Your task to perform on an android device: Clear all items from cart on bestbuy.com. Add "logitech g502" to the cart on bestbuy.com Image 0: 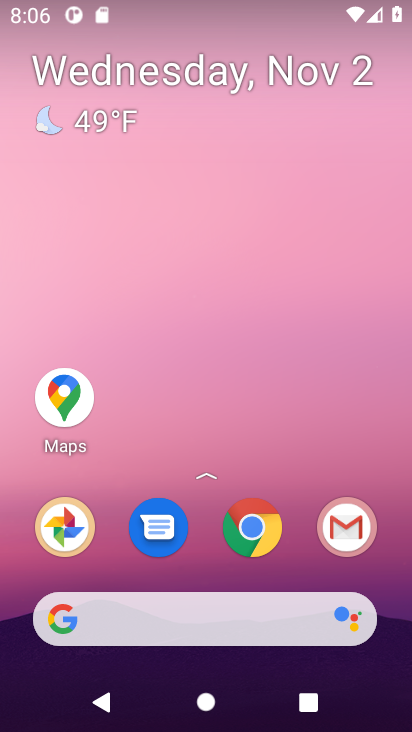
Step 0: click (255, 531)
Your task to perform on an android device: Clear all items from cart on bestbuy.com. Add "logitech g502" to the cart on bestbuy.com Image 1: 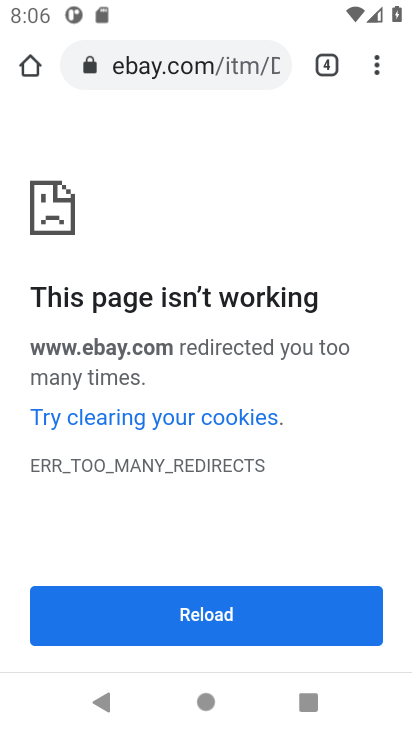
Step 1: click (190, 74)
Your task to perform on an android device: Clear all items from cart on bestbuy.com. Add "logitech g502" to the cart on bestbuy.com Image 2: 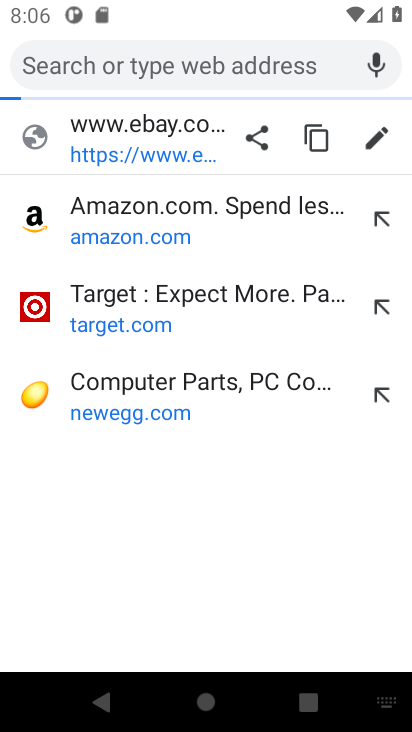
Step 2: type "bestbuy"
Your task to perform on an android device: Clear all items from cart on bestbuy.com. Add "logitech g502" to the cart on bestbuy.com Image 3: 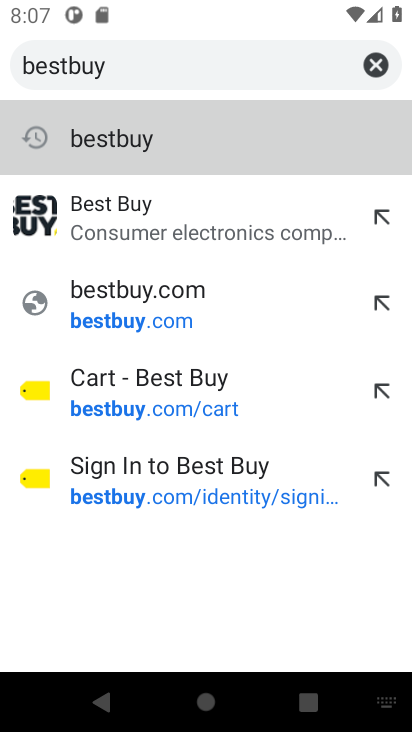
Step 3: click (123, 138)
Your task to perform on an android device: Clear all items from cart on bestbuy.com. Add "logitech g502" to the cart on bestbuy.com Image 4: 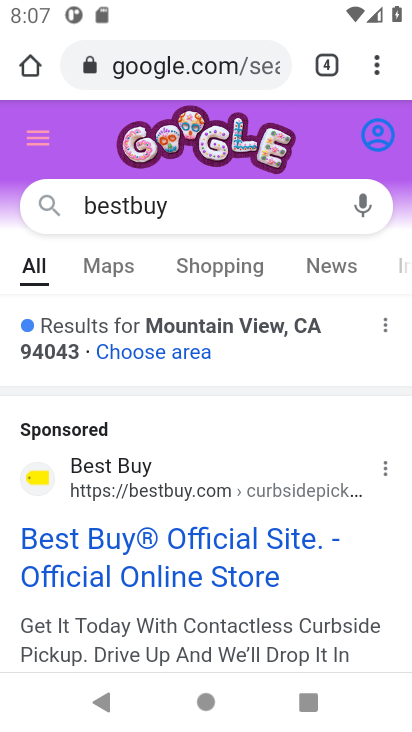
Step 4: click (104, 537)
Your task to perform on an android device: Clear all items from cart on bestbuy.com. Add "logitech g502" to the cart on bestbuy.com Image 5: 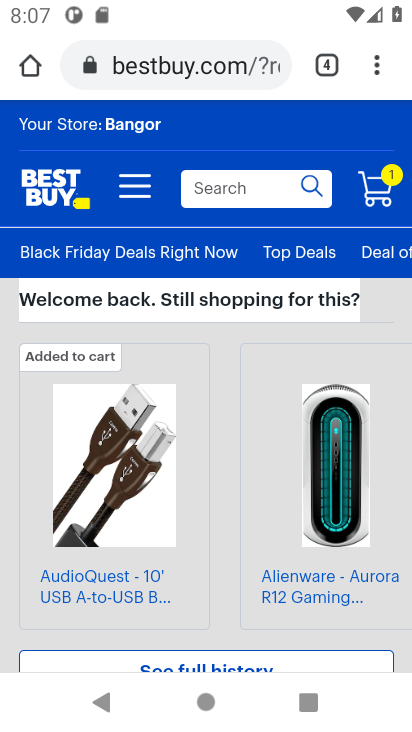
Step 5: click (385, 195)
Your task to perform on an android device: Clear all items from cart on bestbuy.com. Add "logitech g502" to the cart on bestbuy.com Image 6: 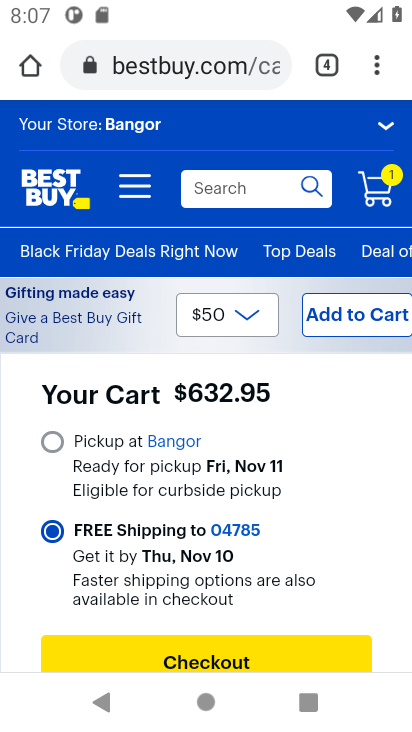
Step 6: drag from (363, 460) to (270, 103)
Your task to perform on an android device: Clear all items from cart on bestbuy.com. Add "logitech g502" to the cart on bestbuy.com Image 7: 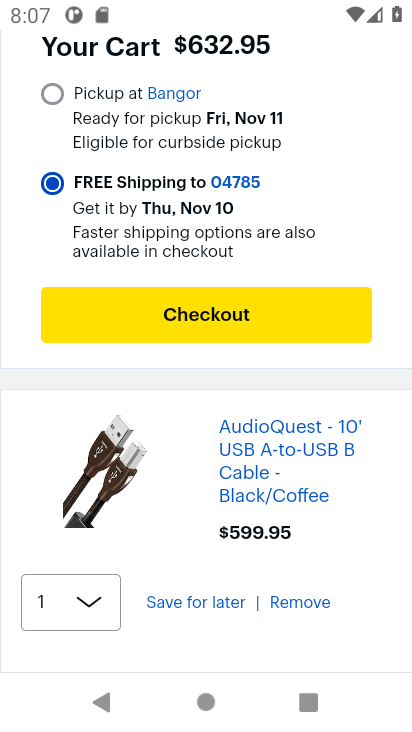
Step 7: click (299, 600)
Your task to perform on an android device: Clear all items from cart on bestbuy.com. Add "logitech g502" to the cart on bestbuy.com Image 8: 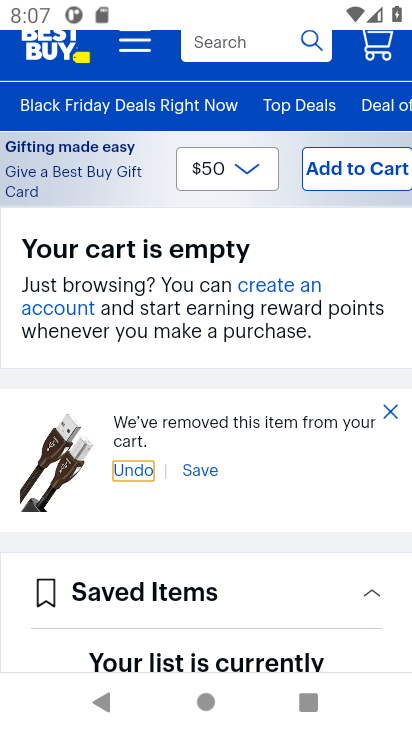
Step 8: click (235, 44)
Your task to perform on an android device: Clear all items from cart on bestbuy.com. Add "logitech g502" to the cart on bestbuy.com Image 9: 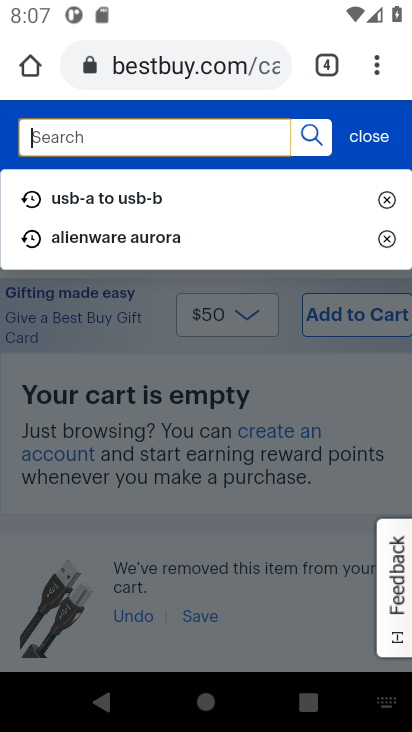
Step 9: type "logitech g502"
Your task to perform on an android device: Clear all items from cart on bestbuy.com. Add "logitech g502" to the cart on bestbuy.com Image 10: 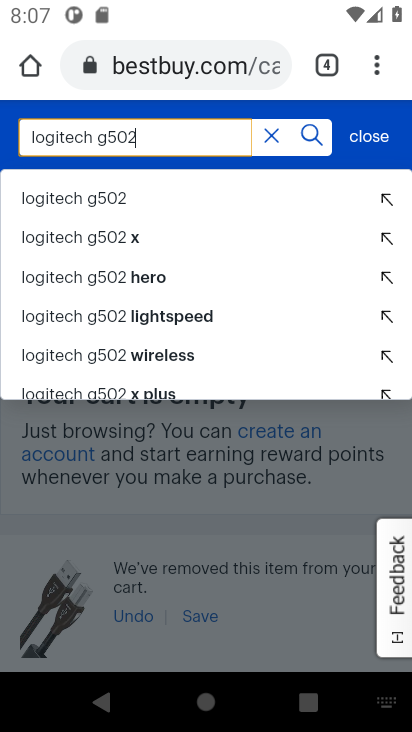
Step 10: click (73, 200)
Your task to perform on an android device: Clear all items from cart on bestbuy.com. Add "logitech g502" to the cart on bestbuy.com Image 11: 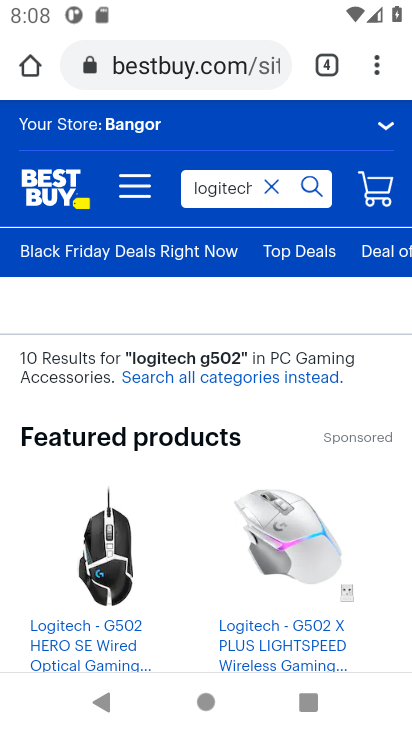
Step 11: click (109, 566)
Your task to perform on an android device: Clear all items from cart on bestbuy.com. Add "logitech g502" to the cart on bestbuy.com Image 12: 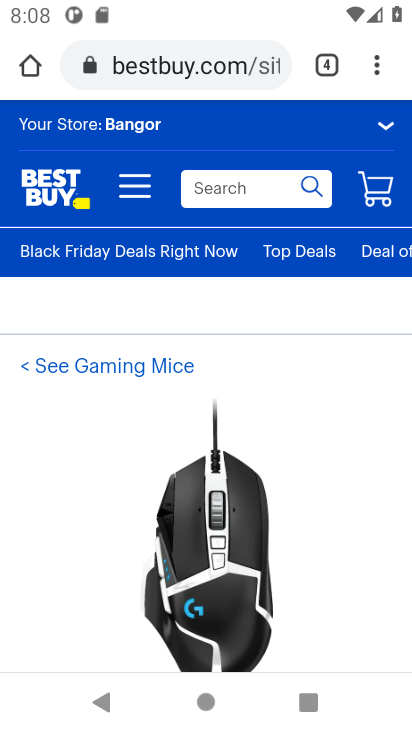
Step 12: drag from (61, 620) to (59, 137)
Your task to perform on an android device: Clear all items from cart on bestbuy.com. Add "logitech g502" to the cart on bestbuy.com Image 13: 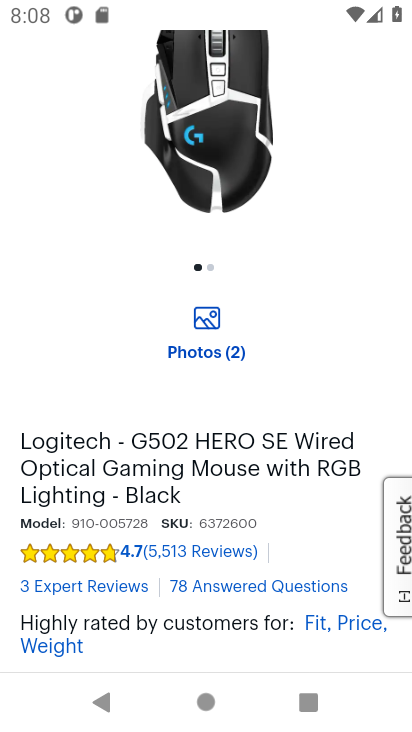
Step 13: drag from (24, 513) to (68, 103)
Your task to perform on an android device: Clear all items from cart on bestbuy.com. Add "logitech g502" to the cart on bestbuy.com Image 14: 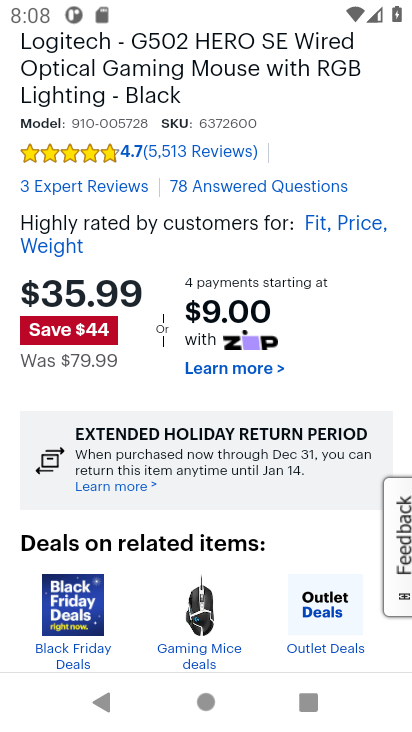
Step 14: drag from (20, 568) to (55, 100)
Your task to perform on an android device: Clear all items from cart on bestbuy.com. Add "logitech g502" to the cart on bestbuy.com Image 15: 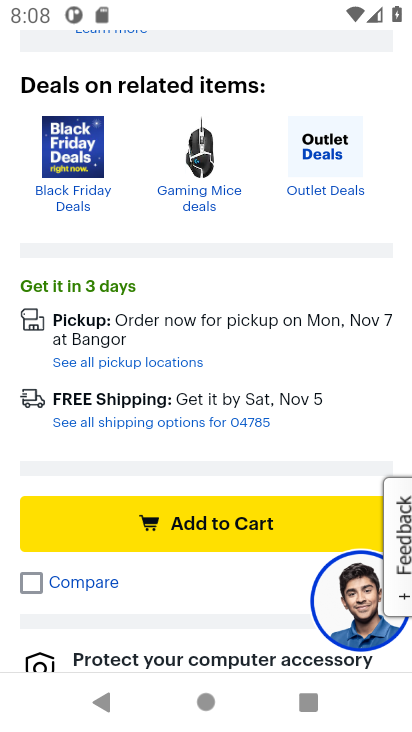
Step 15: click (167, 525)
Your task to perform on an android device: Clear all items from cart on bestbuy.com. Add "logitech g502" to the cart on bestbuy.com Image 16: 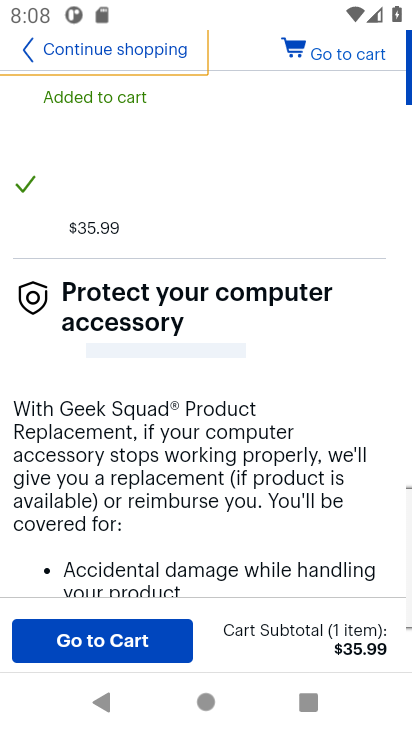
Step 16: task complete